Your task to perform on an android device: turn on notifications settings in the gmail app Image 0: 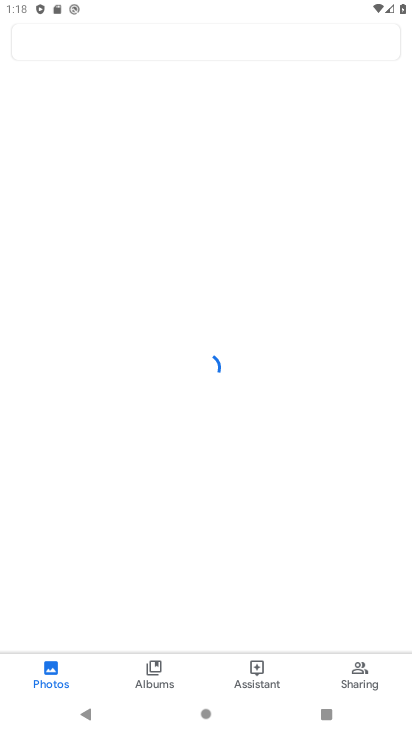
Step 0: press home button
Your task to perform on an android device: turn on notifications settings in the gmail app Image 1: 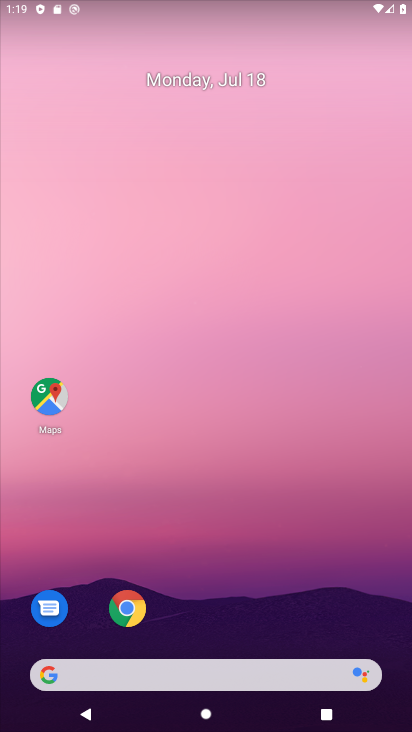
Step 1: drag from (244, 704) to (208, 123)
Your task to perform on an android device: turn on notifications settings in the gmail app Image 2: 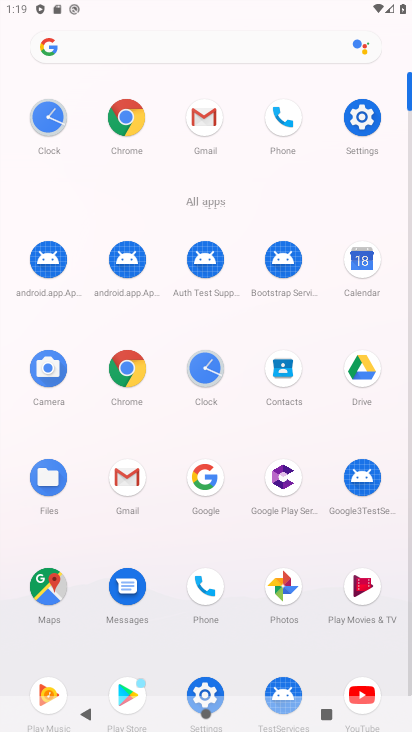
Step 2: click (132, 473)
Your task to perform on an android device: turn on notifications settings in the gmail app Image 3: 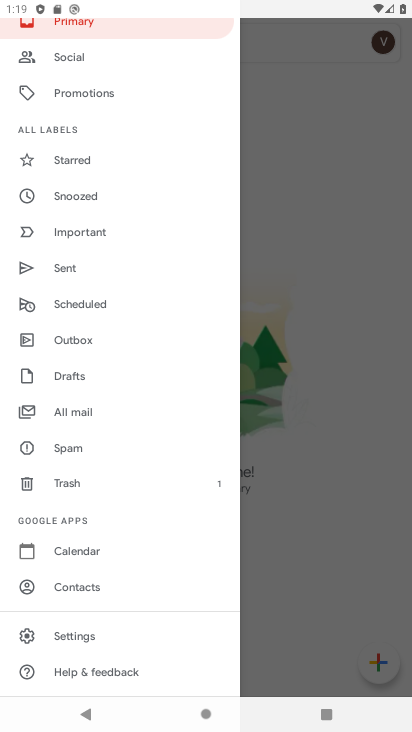
Step 3: click (73, 634)
Your task to perform on an android device: turn on notifications settings in the gmail app Image 4: 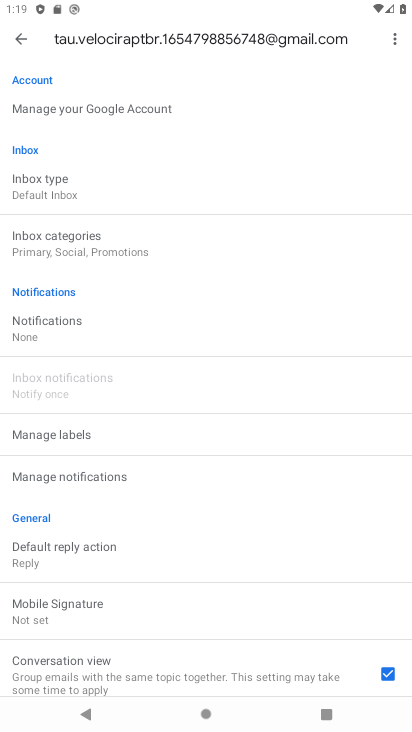
Step 4: click (36, 320)
Your task to perform on an android device: turn on notifications settings in the gmail app Image 5: 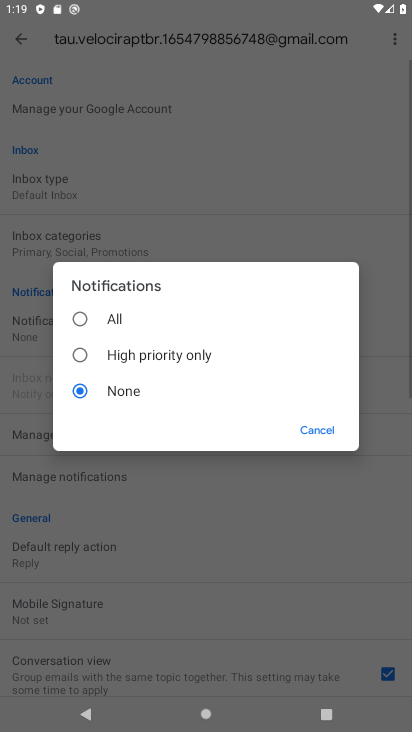
Step 5: click (77, 314)
Your task to perform on an android device: turn on notifications settings in the gmail app Image 6: 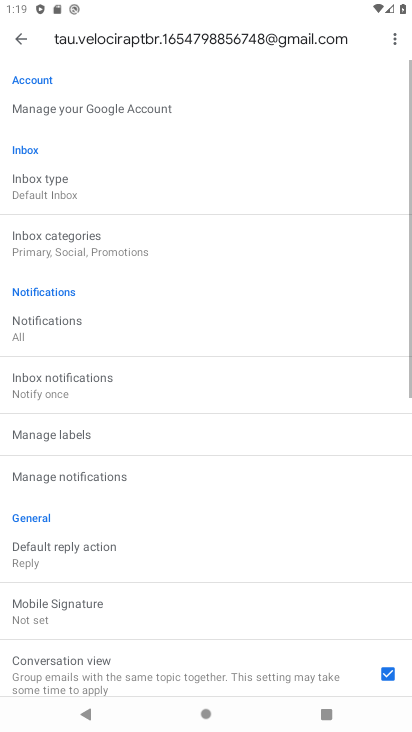
Step 6: task complete